Your task to perform on an android device: Open Yahoo.com Image 0: 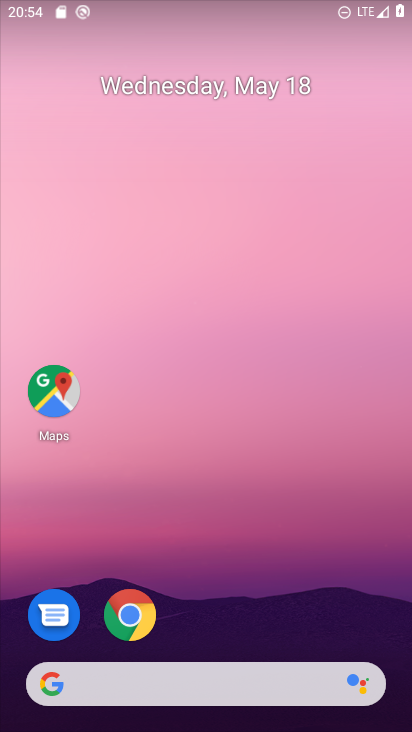
Step 0: click (120, 631)
Your task to perform on an android device: Open Yahoo.com Image 1: 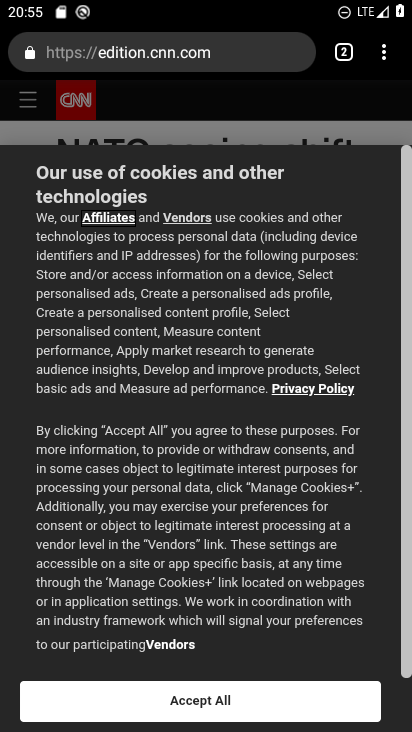
Step 1: click (169, 61)
Your task to perform on an android device: Open Yahoo.com Image 2: 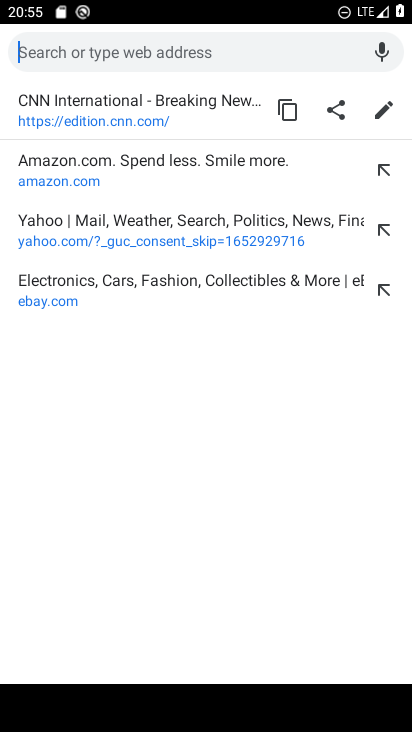
Step 2: click (209, 241)
Your task to perform on an android device: Open Yahoo.com Image 3: 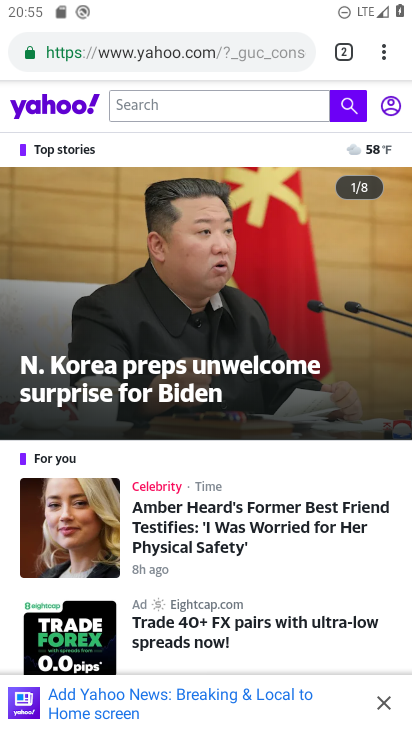
Step 3: task complete